Your task to perform on an android device: toggle data saver in the chrome app Image 0: 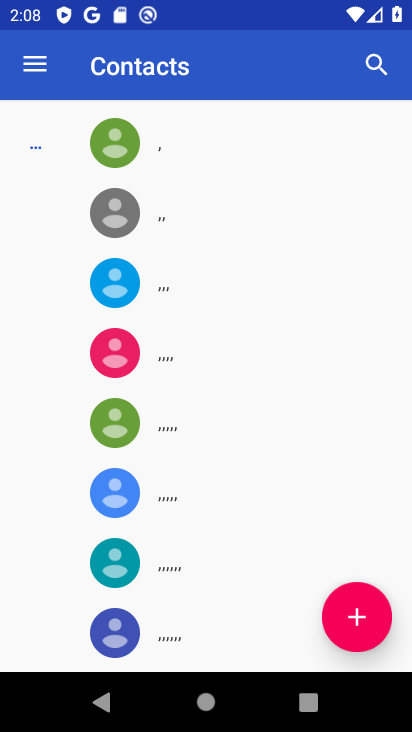
Step 0: press home button
Your task to perform on an android device: toggle data saver in the chrome app Image 1: 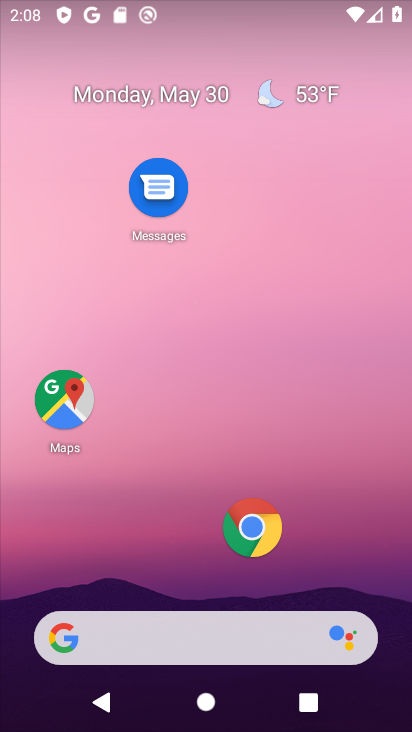
Step 1: drag from (210, 548) to (371, 163)
Your task to perform on an android device: toggle data saver in the chrome app Image 2: 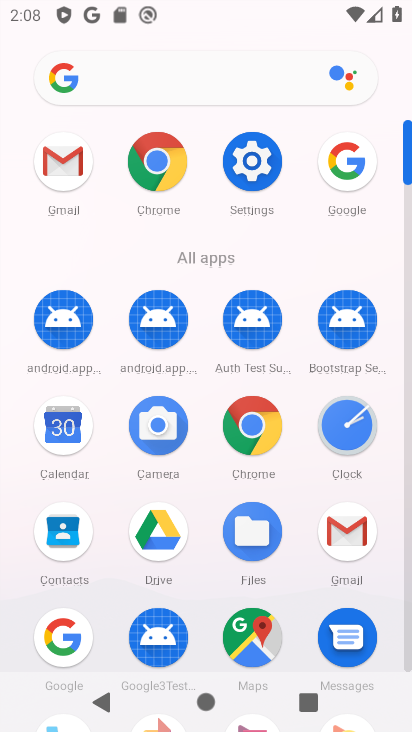
Step 2: click (263, 444)
Your task to perform on an android device: toggle data saver in the chrome app Image 3: 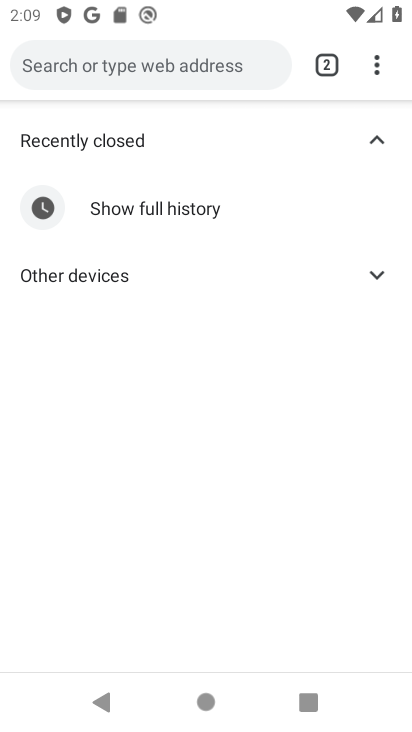
Step 3: click (374, 70)
Your task to perform on an android device: toggle data saver in the chrome app Image 4: 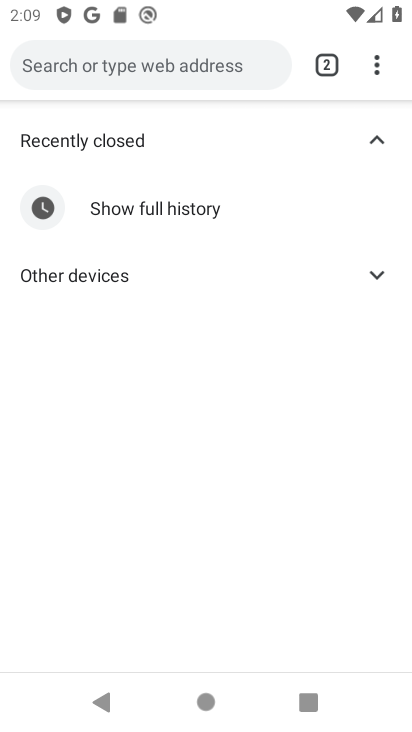
Step 4: click (381, 70)
Your task to perform on an android device: toggle data saver in the chrome app Image 5: 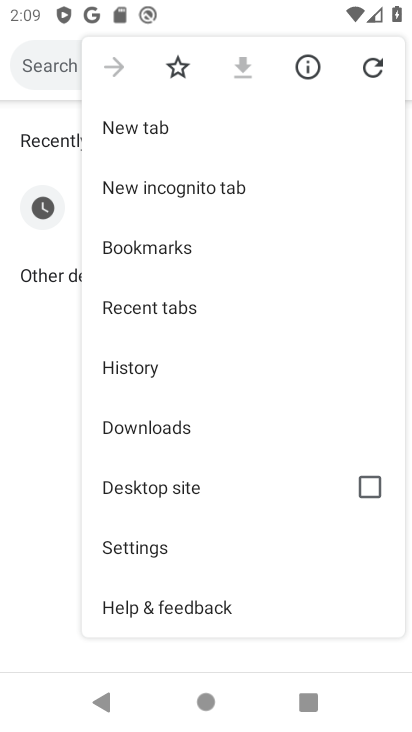
Step 5: click (172, 555)
Your task to perform on an android device: toggle data saver in the chrome app Image 6: 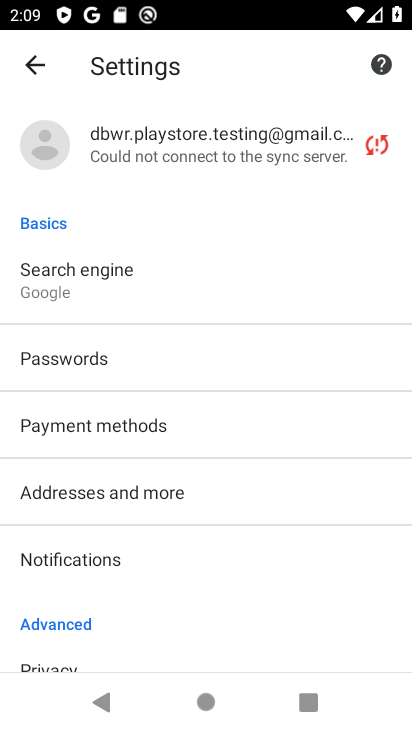
Step 6: drag from (144, 608) to (262, 207)
Your task to perform on an android device: toggle data saver in the chrome app Image 7: 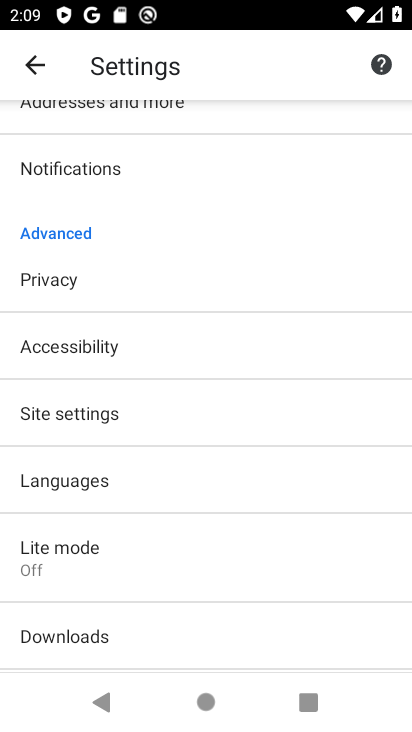
Step 7: click (168, 561)
Your task to perform on an android device: toggle data saver in the chrome app Image 8: 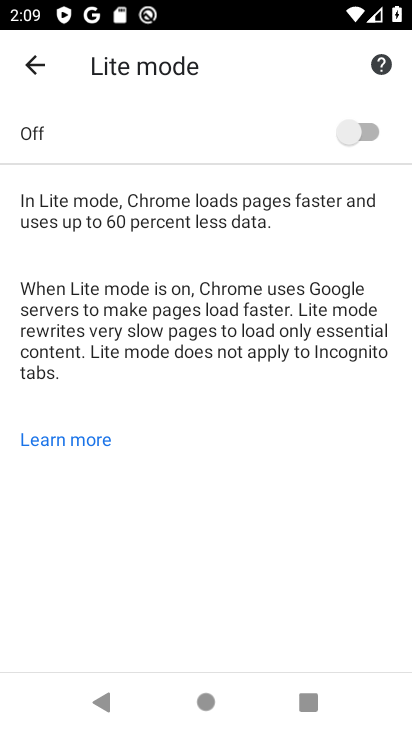
Step 8: click (358, 144)
Your task to perform on an android device: toggle data saver in the chrome app Image 9: 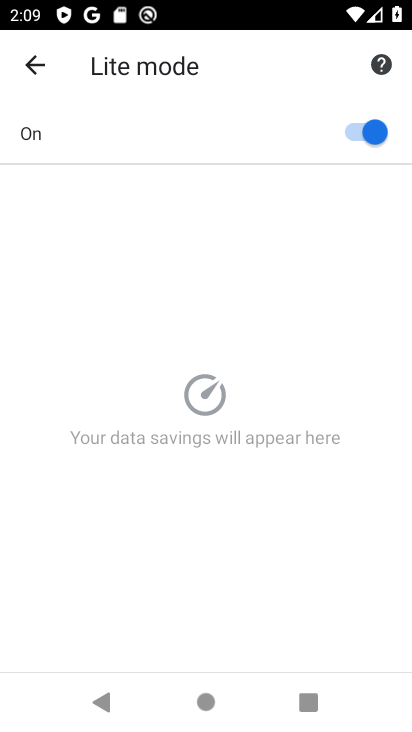
Step 9: task complete